Your task to perform on an android device: Turn off the flashlight Image 0: 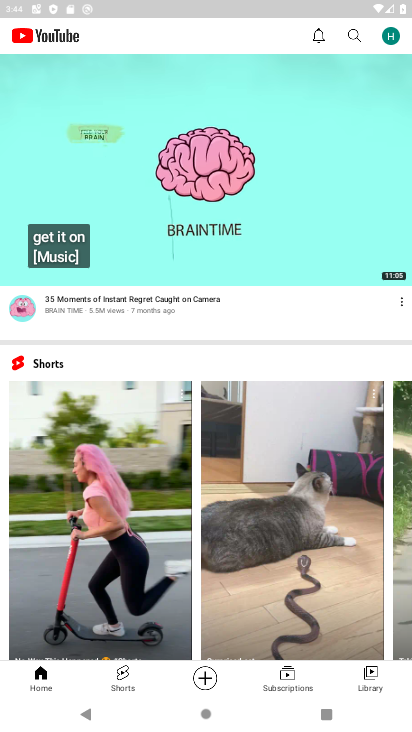
Step 0: task complete